Your task to perform on an android device: turn on location history Image 0: 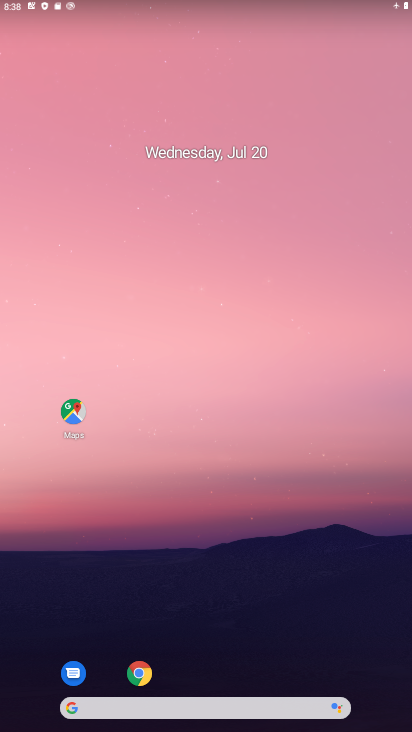
Step 0: drag from (226, 692) to (215, 324)
Your task to perform on an android device: turn on location history Image 1: 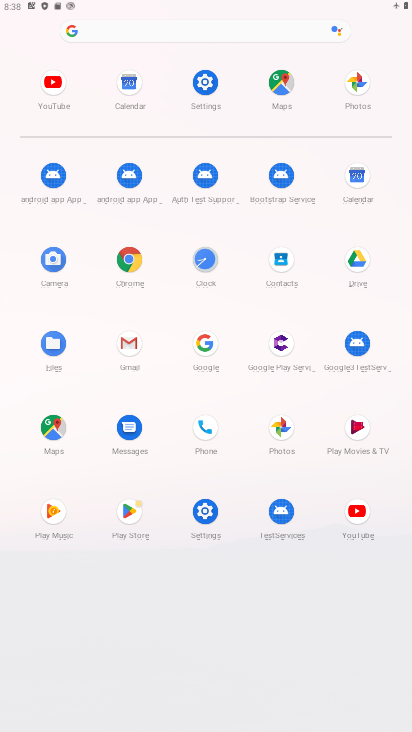
Step 1: click (201, 79)
Your task to perform on an android device: turn on location history Image 2: 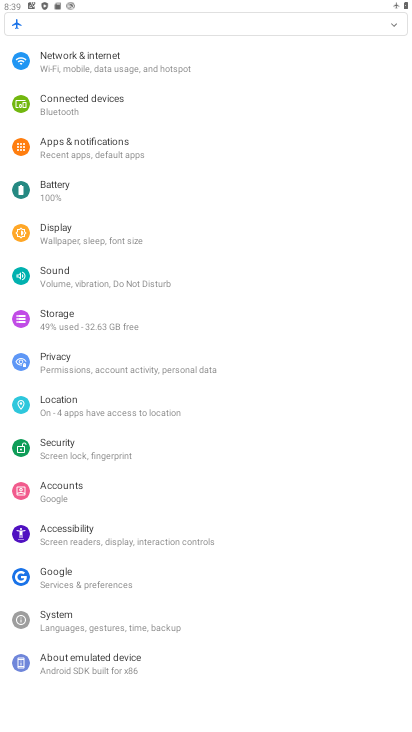
Step 2: click (61, 406)
Your task to perform on an android device: turn on location history Image 3: 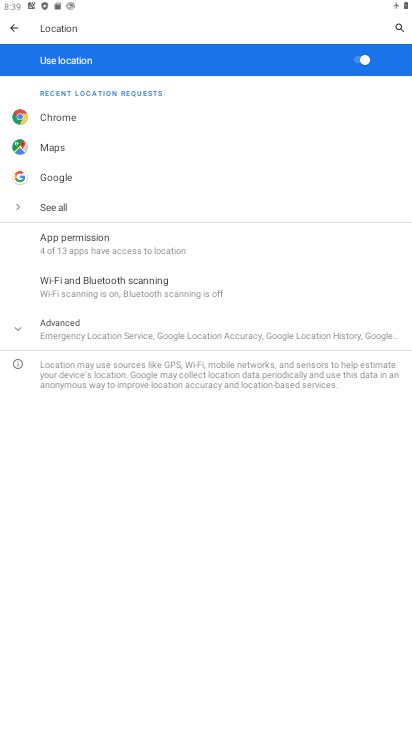
Step 3: click (78, 339)
Your task to perform on an android device: turn on location history Image 4: 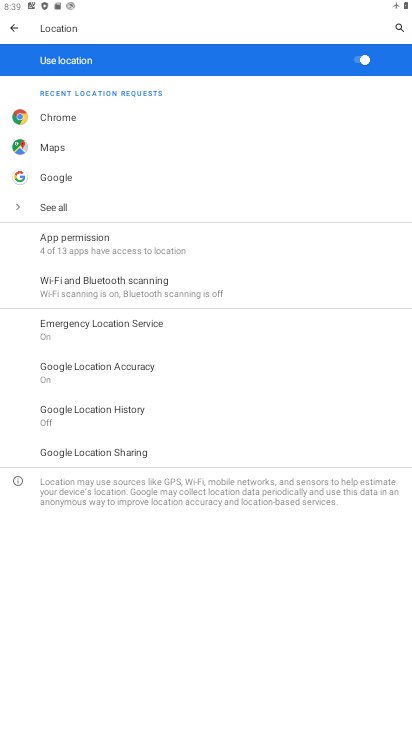
Step 4: click (86, 410)
Your task to perform on an android device: turn on location history Image 5: 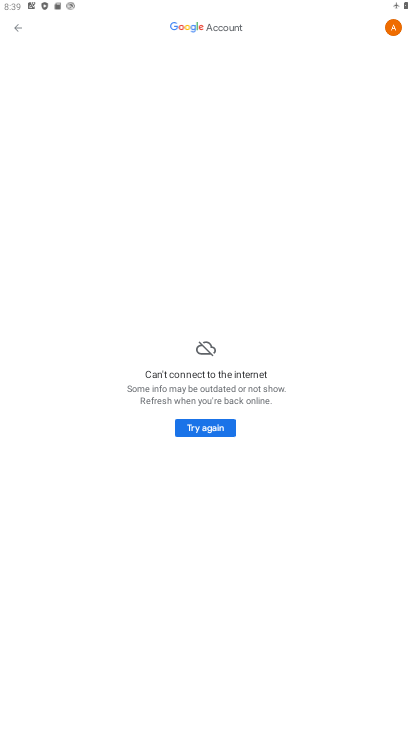
Step 5: click (216, 419)
Your task to perform on an android device: turn on location history Image 6: 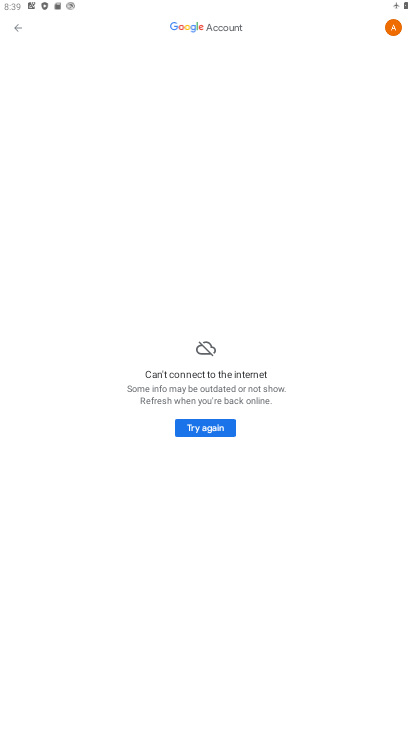
Step 6: task complete